Your task to perform on an android device: add a contact Image 0: 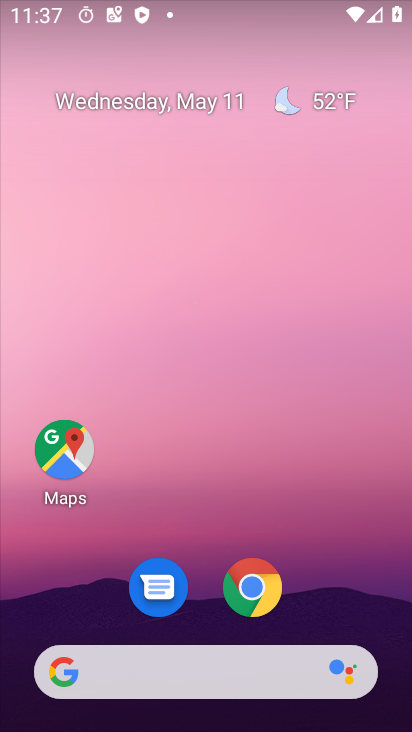
Step 0: drag from (220, 693) to (402, 155)
Your task to perform on an android device: add a contact Image 1: 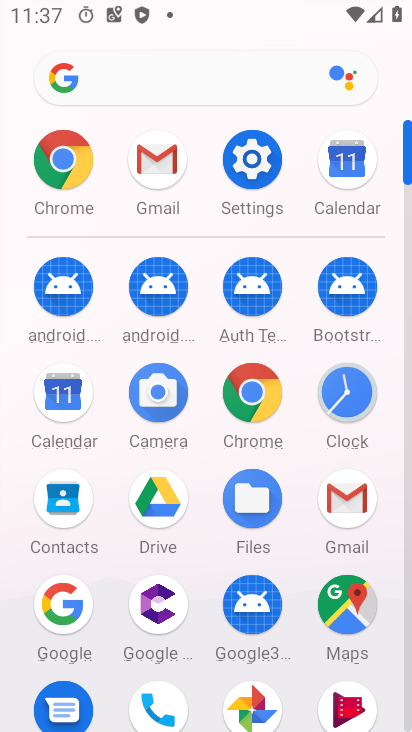
Step 1: click (149, 696)
Your task to perform on an android device: add a contact Image 2: 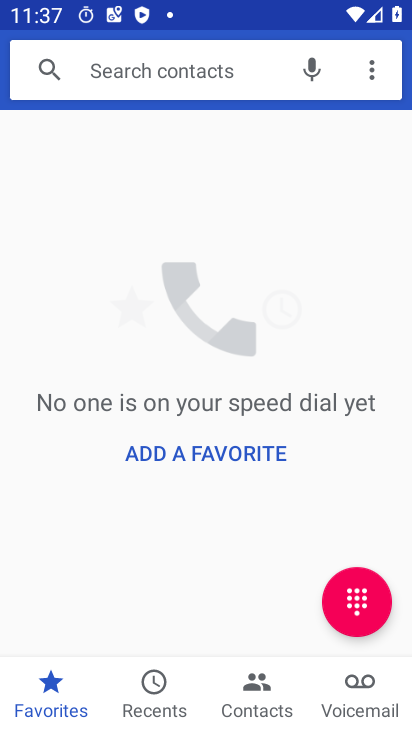
Step 2: click (275, 676)
Your task to perform on an android device: add a contact Image 3: 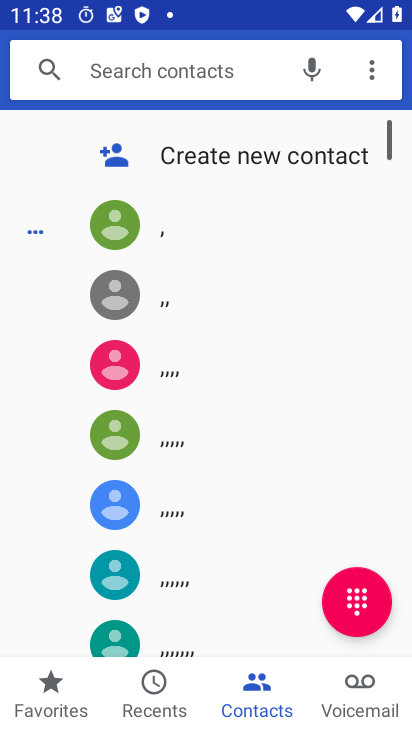
Step 3: click (282, 162)
Your task to perform on an android device: add a contact Image 4: 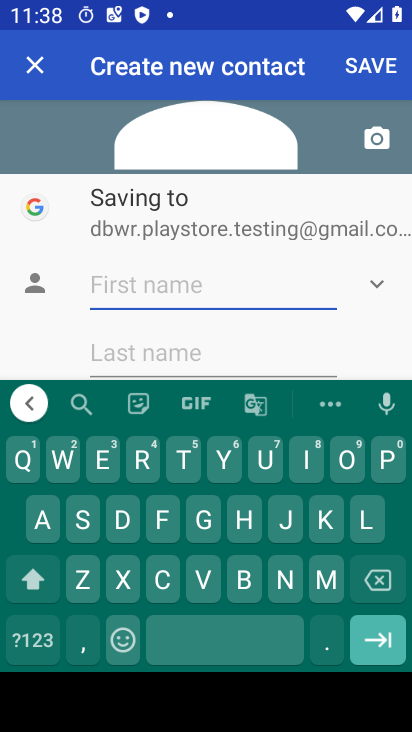
Step 4: click (136, 480)
Your task to perform on an android device: add a contact Image 5: 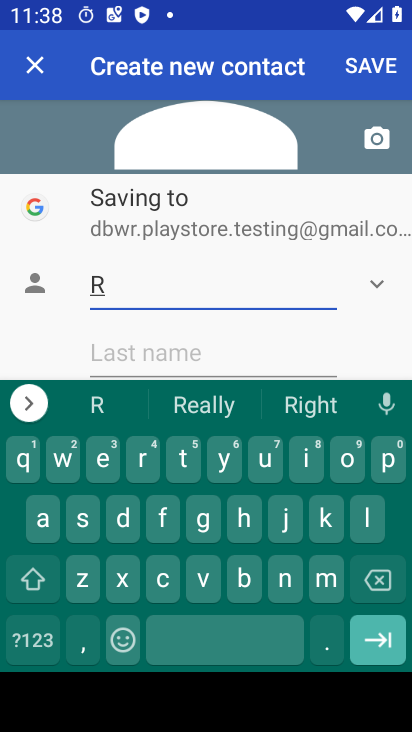
Step 5: click (304, 454)
Your task to perform on an android device: add a contact Image 6: 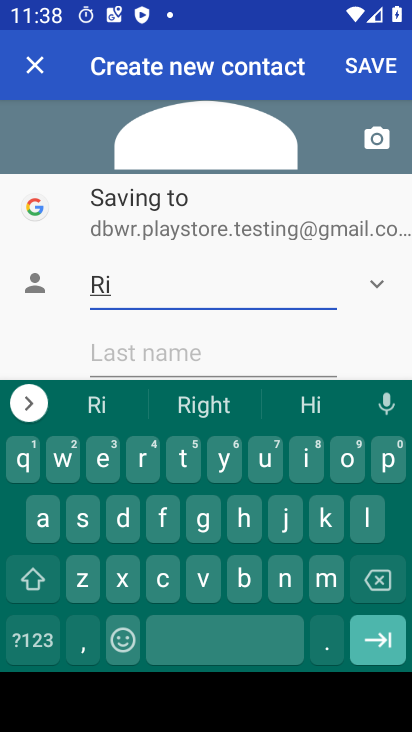
Step 6: click (187, 462)
Your task to perform on an android device: add a contact Image 7: 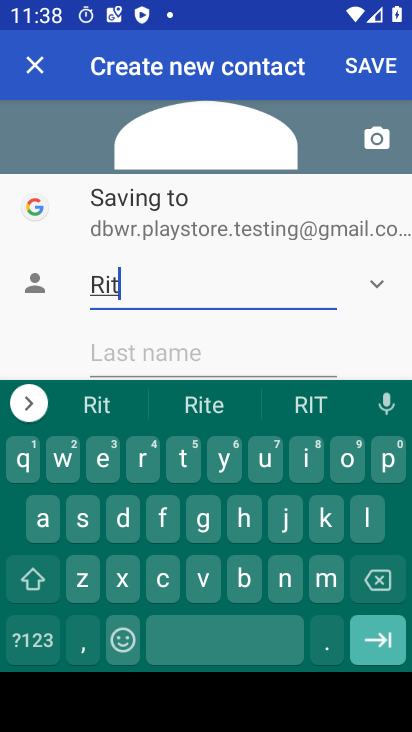
Step 7: click (45, 516)
Your task to perform on an android device: add a contact Image 8: 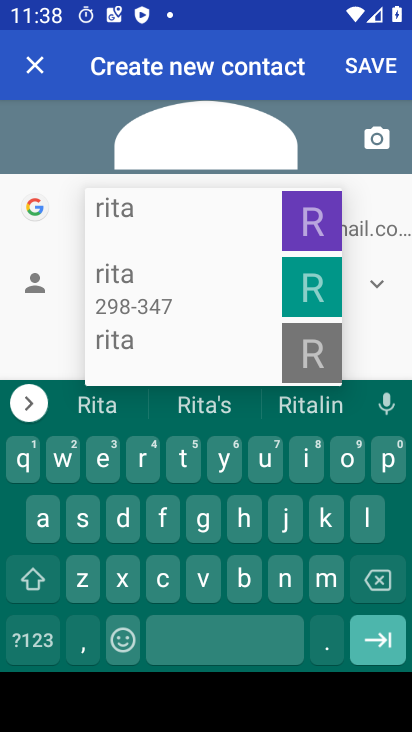
Step 8: drag from (199, 328) to (242, 215)
Your task to perform on an android device: add a contact Image 9: 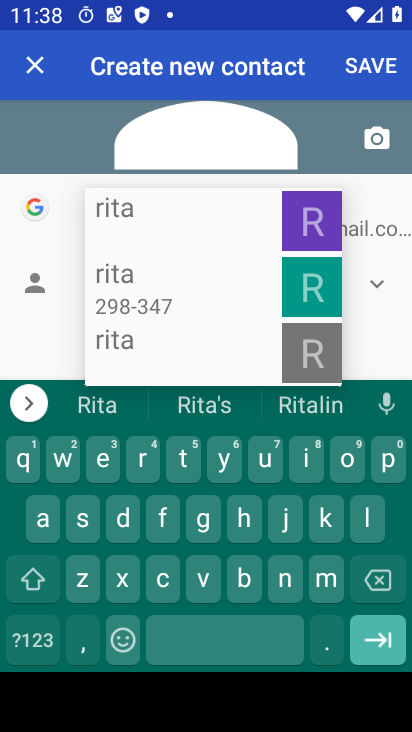
Step 9: click (71, 469)
Your task to perform on an android device: add a contact Image 10: 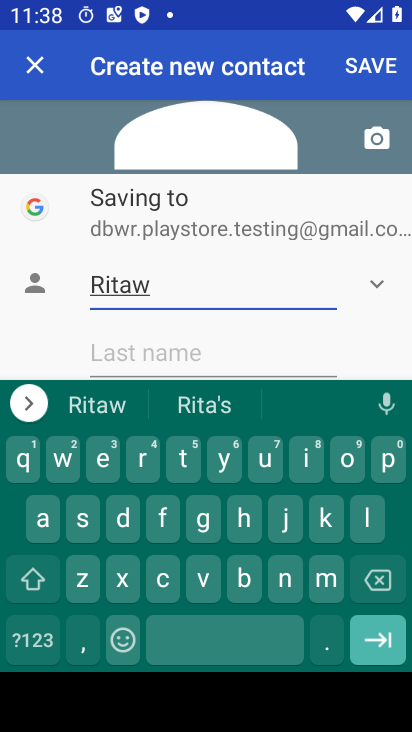
Step 10: drag from (174, 343) to (256, 226)
Your task to perform on an android device: add a contact Image 11: 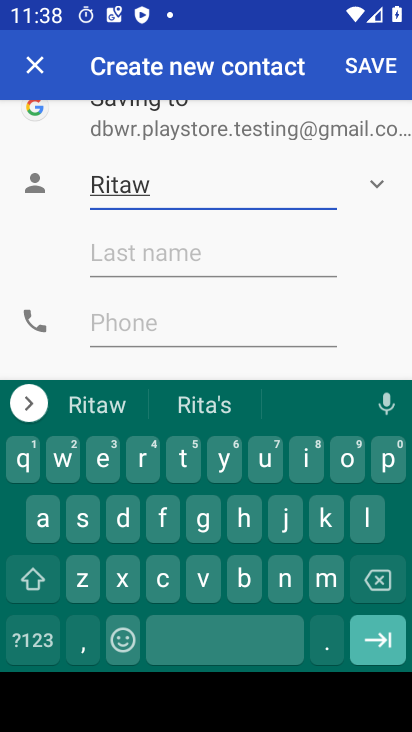
Step 11: click (143, 319)
Your task to perform on an android device: add a contact Image 12: 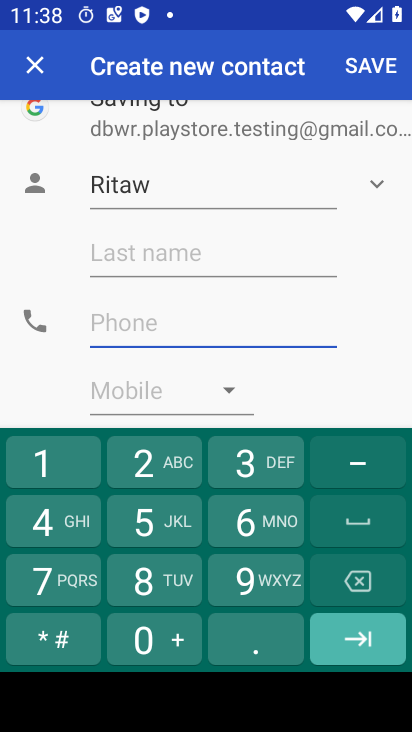
Step 12: click (254, 591)
Your task to perform on an android device: add a contact Image 13: 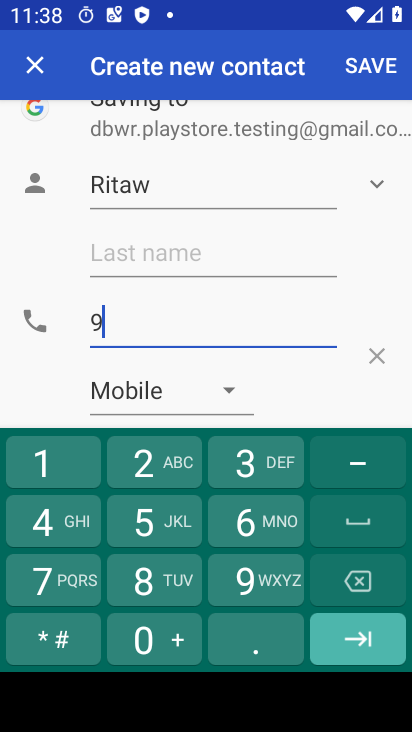
Step 13: click (150, 597)
Your task to perform on an android device: add a contact Image 14: 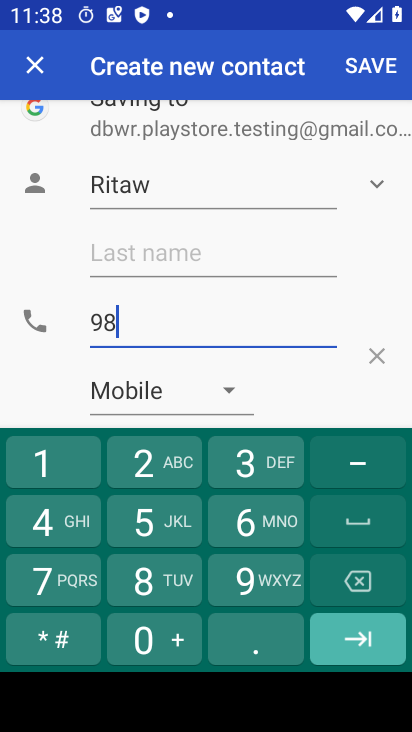
Step 14: click (54, 458)
Your task to perform on an android device: add a contact Image 15: 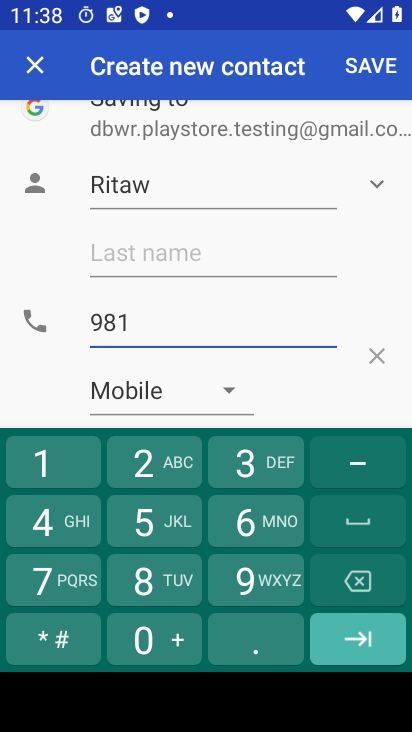
Step 15: click (154, 582)
Your task to perform on an android device: add a contact Image 16: 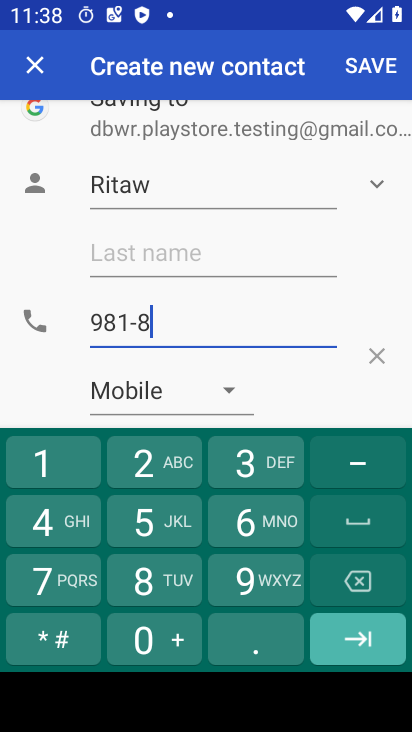
Step 16: click (160, 530)
Your task to perform on an android device: add a contact Image 17: 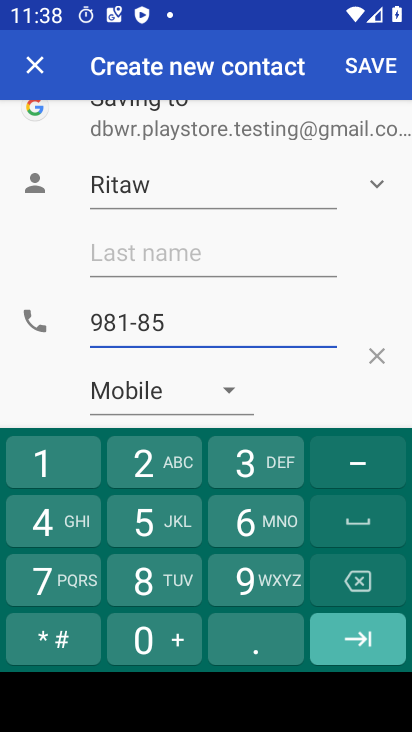
Step 17: click (262, 523)
Your task to perform on an android device: add a contact Image 18: 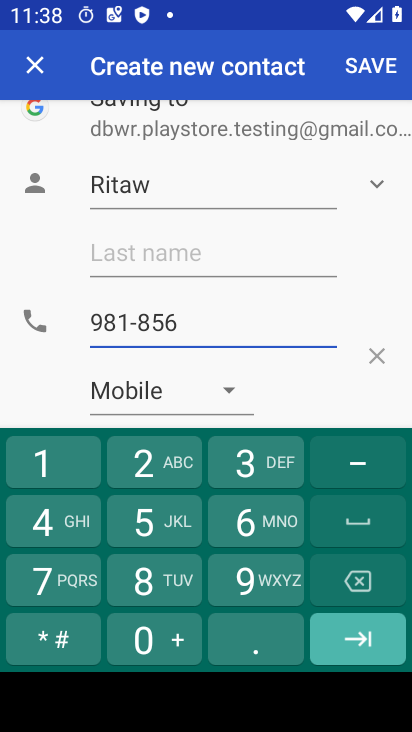
Step 18: click (177, 580)
Your task to perform on an android device: add a contact Image 19: 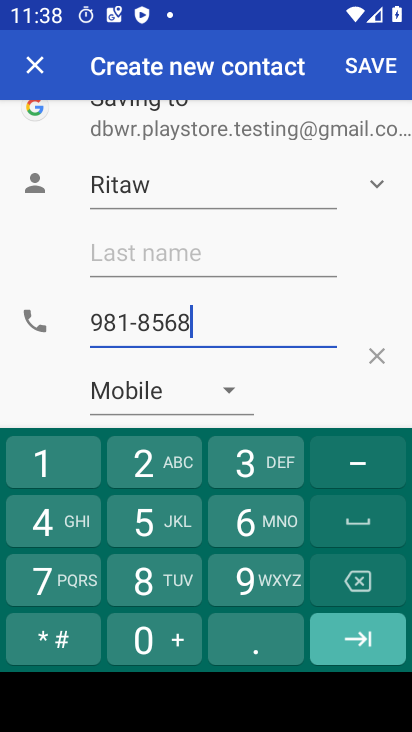
Step 19: click (160, 543)
Your task to perform on an android device: add a contact Image 20: 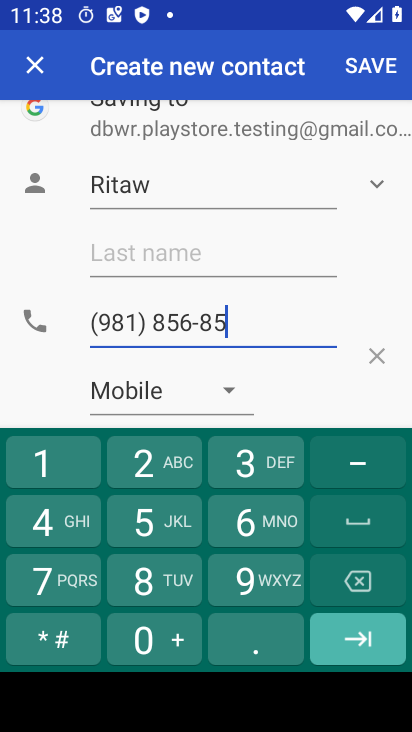
Step 20: click (62, 532)
Your task to perform on an android device: add a contact Image 21: 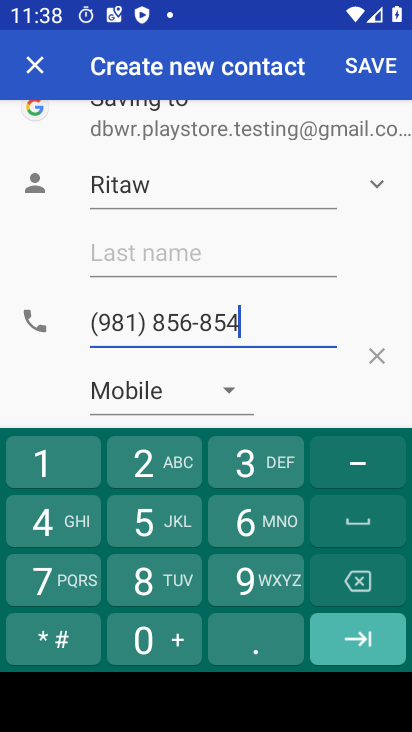
Step 21: click (142, 454)
Your task to perform on an android device: add a contact Image 22: 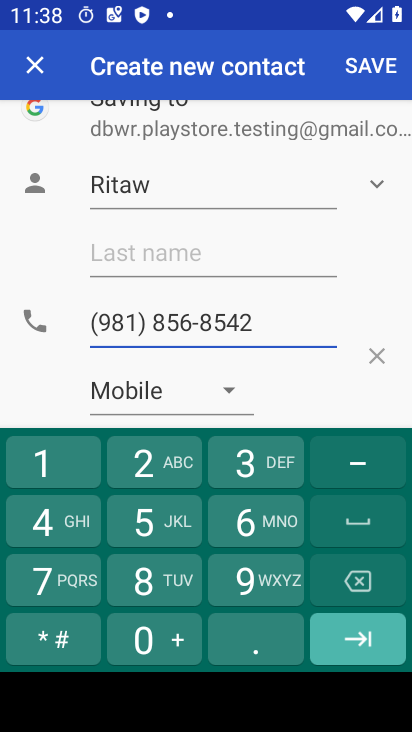
Step 22: click (375, 65)
Your task to perform on an android device: add a contact Image 23: 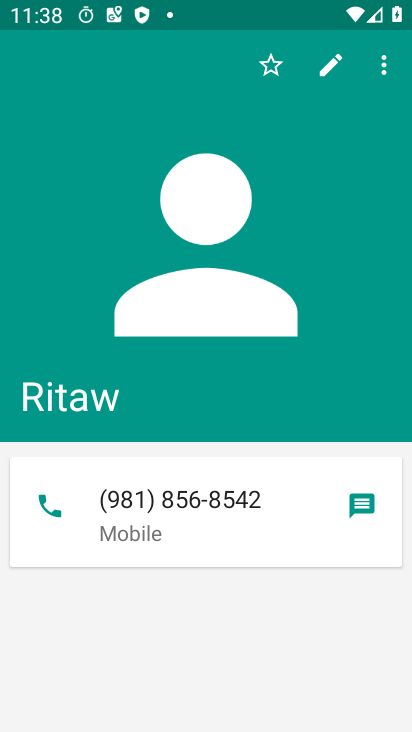
Step 23: task complete